Your task to perform on an android device: What is the speed of sound? Image 0: 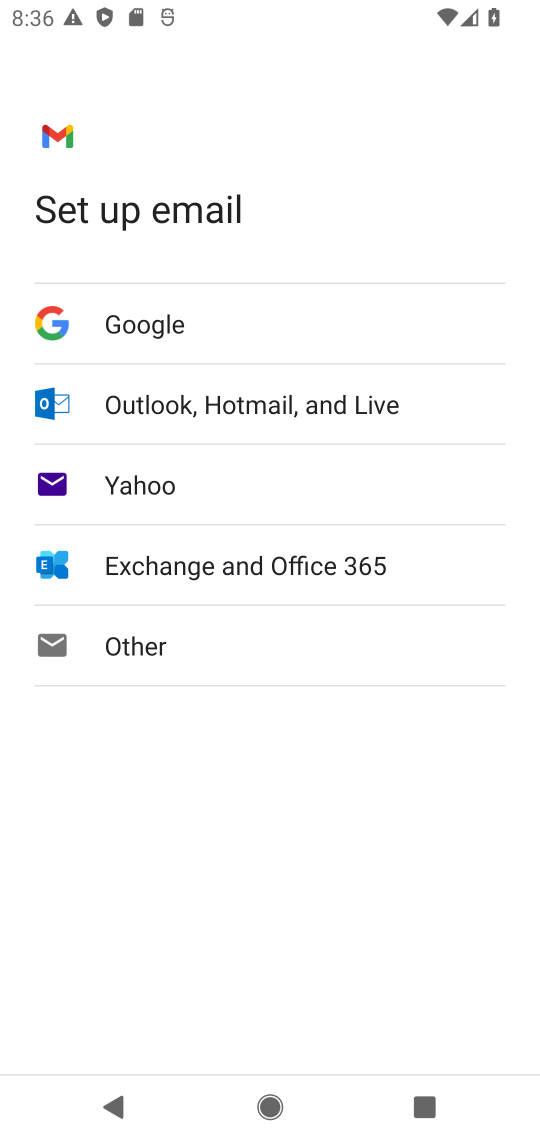
Step 0: press home button
Your task to perform on an android device: What is the speed of sound? Image 1: 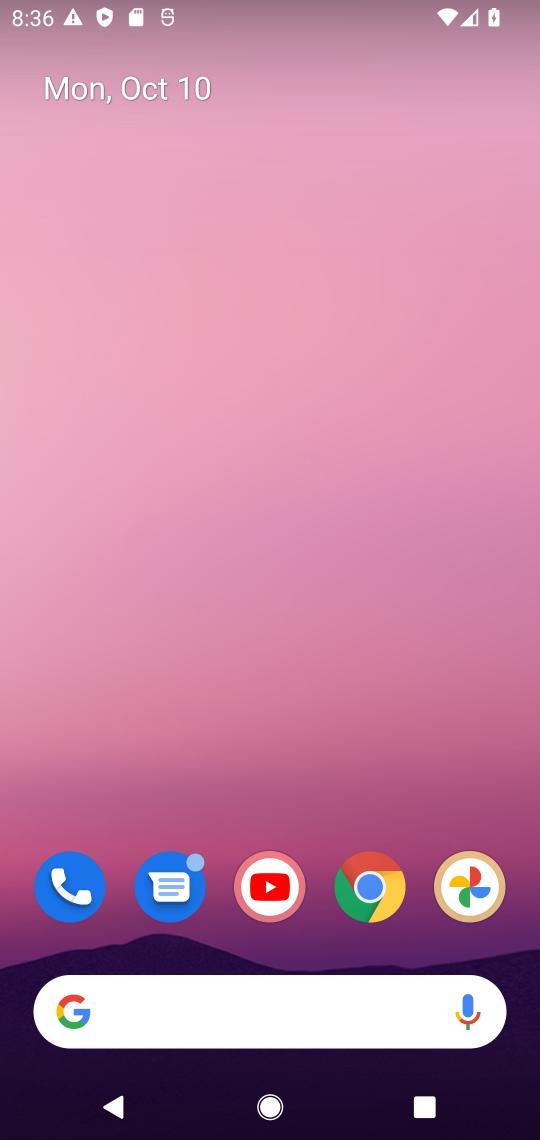
Step 1: click (368, 893)
Your task to perform on an android device: What is the speed of sound? Image 2: 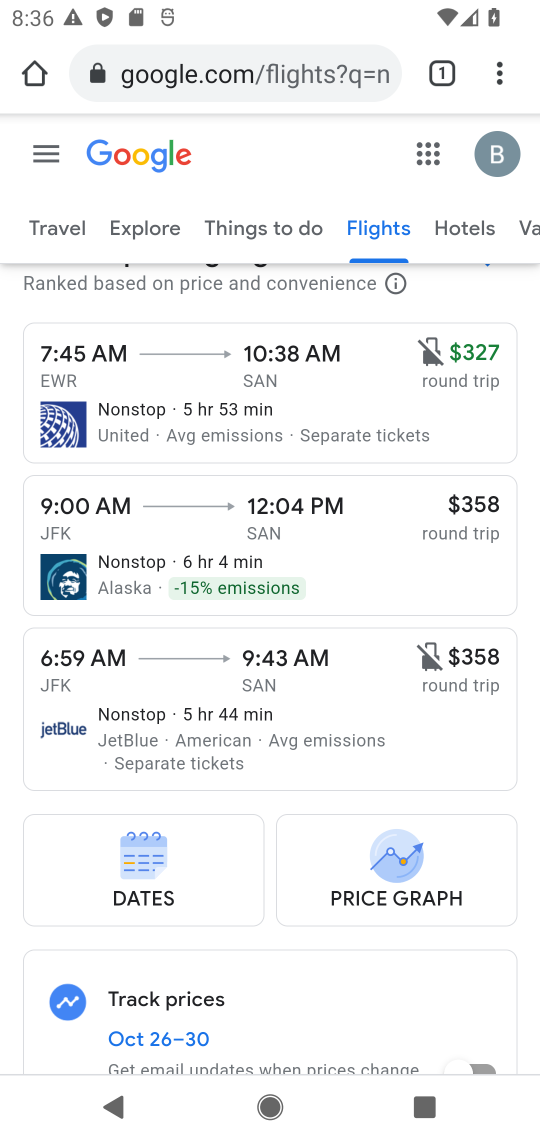
Step 2: click (181, 64)
Your task to perform on an android device: What is the speed of sound? Image 3: 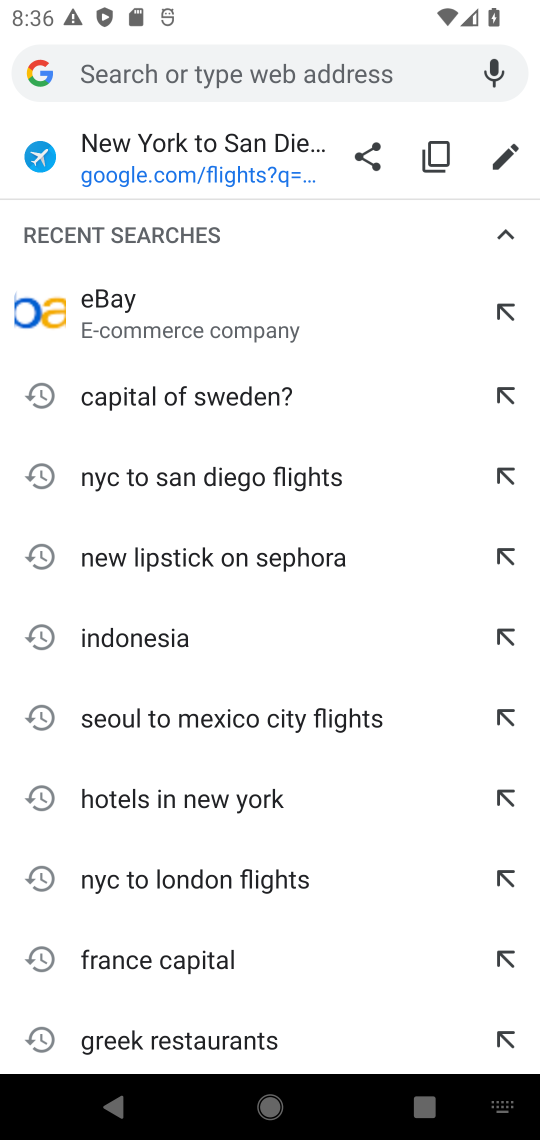
Step 3: type "speed of sound"
Your task to perform on an android device: What is the speed of sound? Image 4: 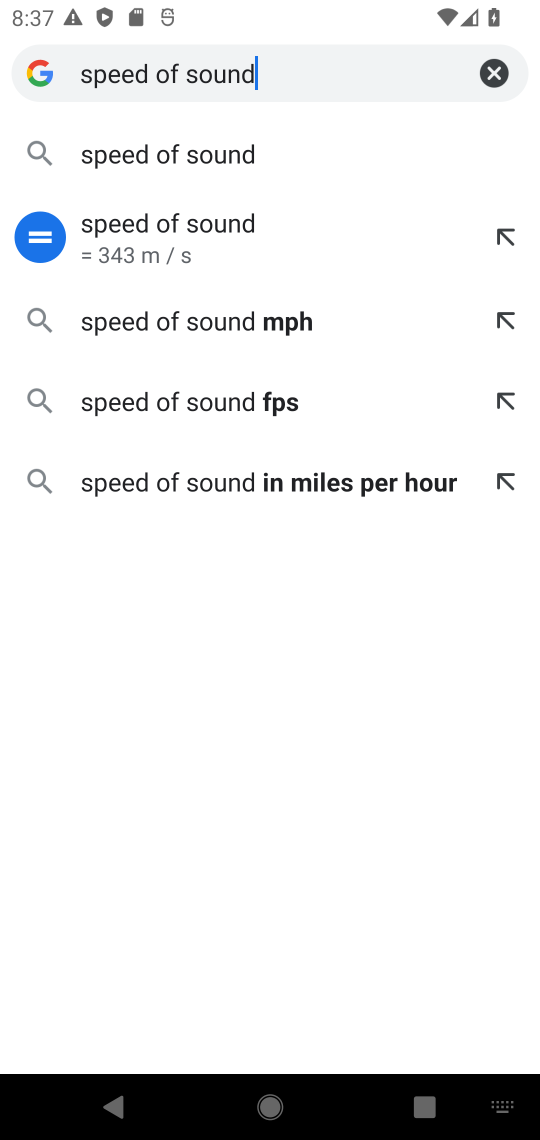
Step 4: click (215, 213)
Your task to perform on an android device: What is the speed of sound? Image 5: 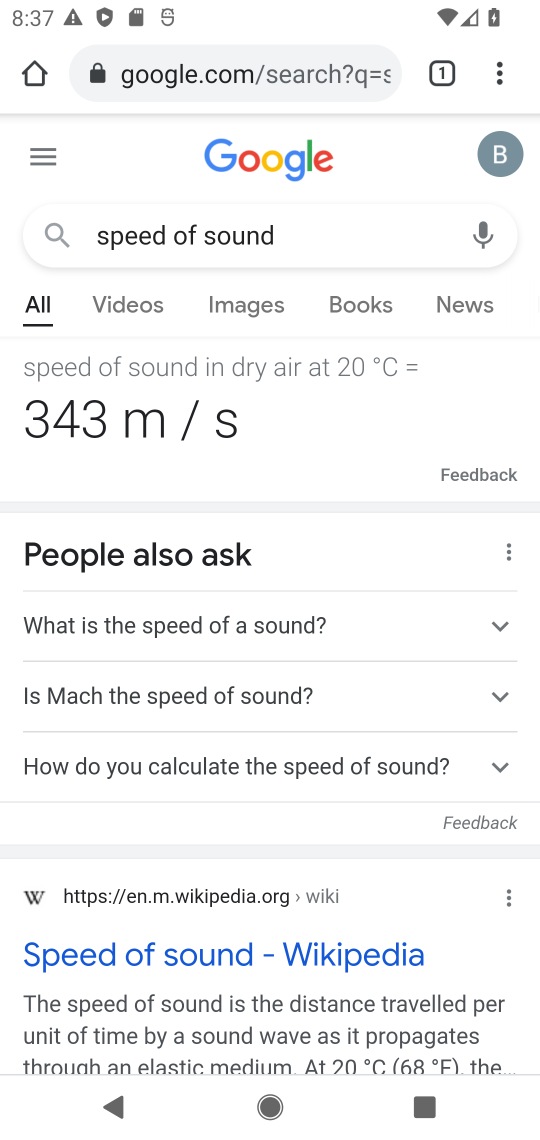
Step 5: task complete